Your task to perform on an android device: check android version Image 0: 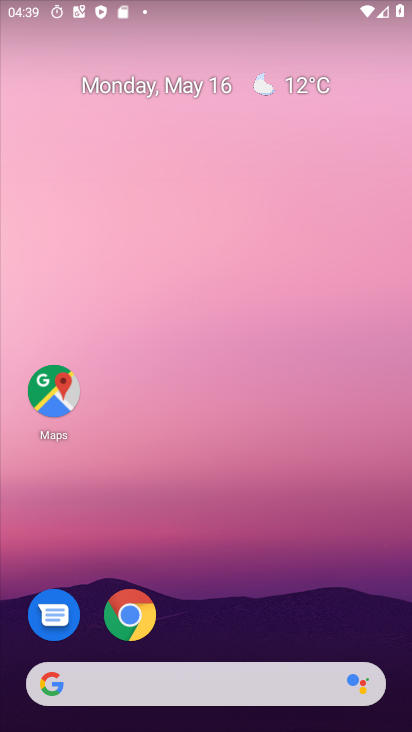
Step 0: drag from (306, 591) to (192, 22)
Your task to perform on an android device: check android version Image 1: 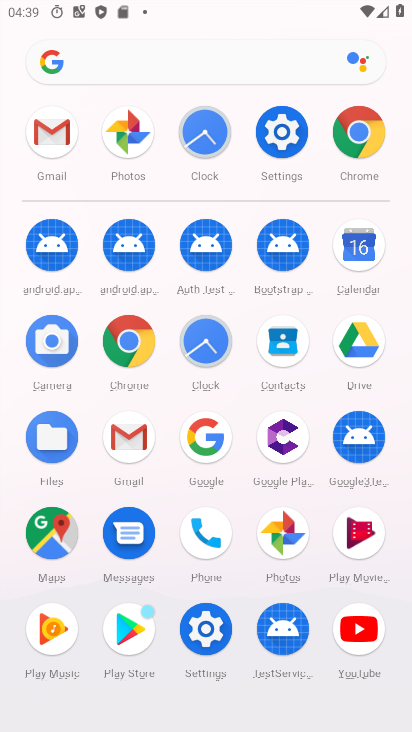
Step 1: click (303, 135)
Your task to perform on an android device: check android version Image 2: 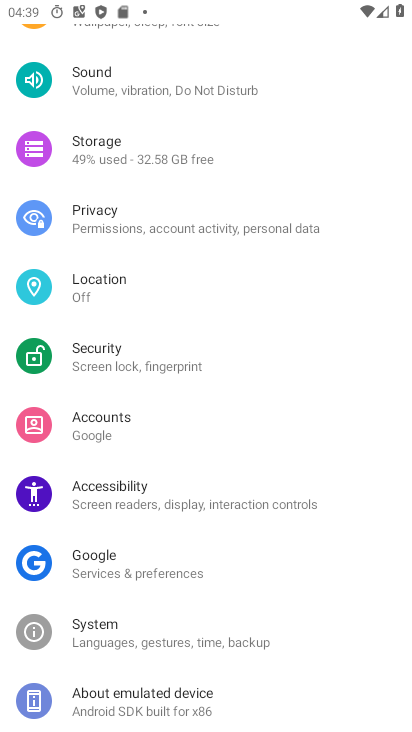
Step 2: click (297, 134)
Your task to perform on an android device: check android version Image 3: 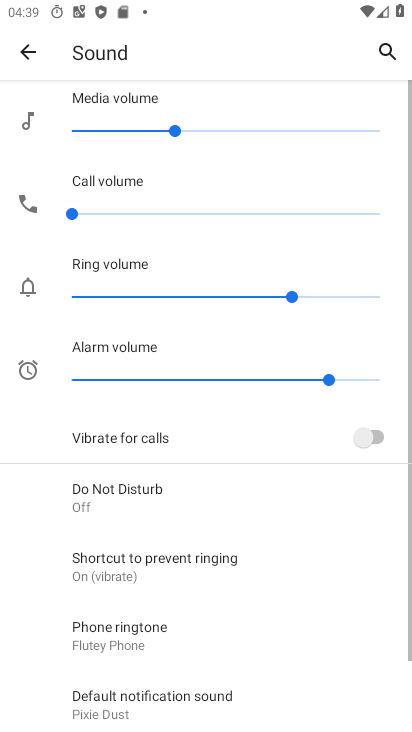
Step 3: drag from (170, 109) to (295, 469)
Your task to perform on an android device: check android version Image 4: 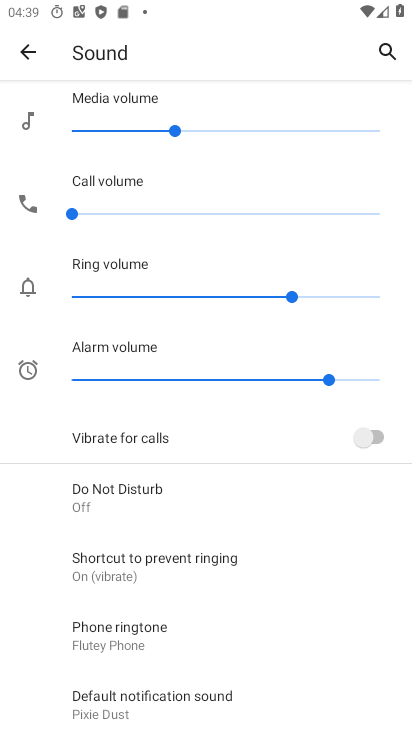
Step 4: click (31, 47)
Your task to perform on an android device: check android version Image 5: 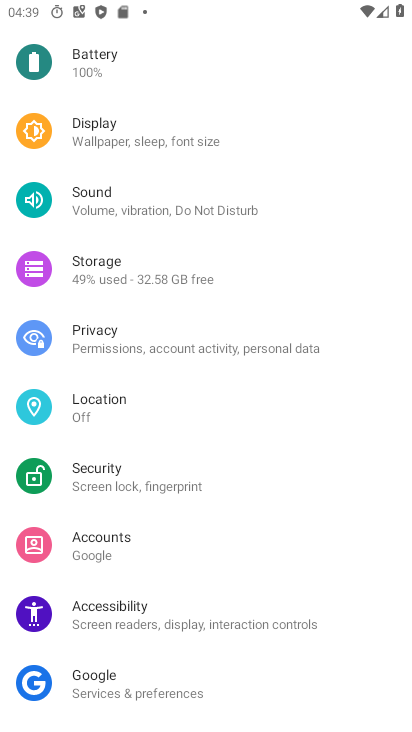
Step 5: drag from (121, 602) to (126, 15)
Your task to perform on an android device: check android version Image 6: 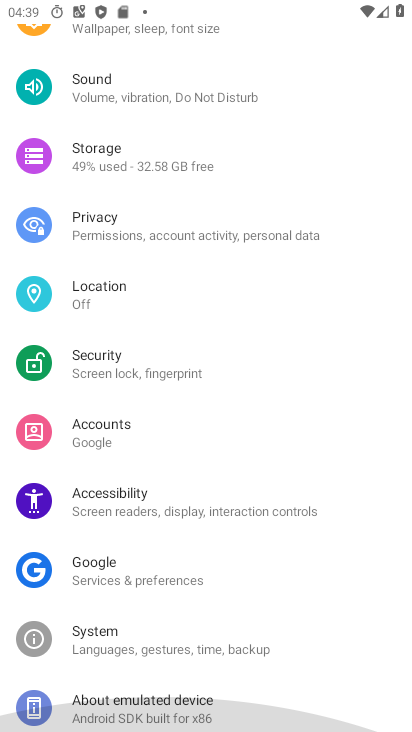
Step 6: drag from (229, 405) to (233, 61)
Your task to perform on an android device: check android version Image 7: 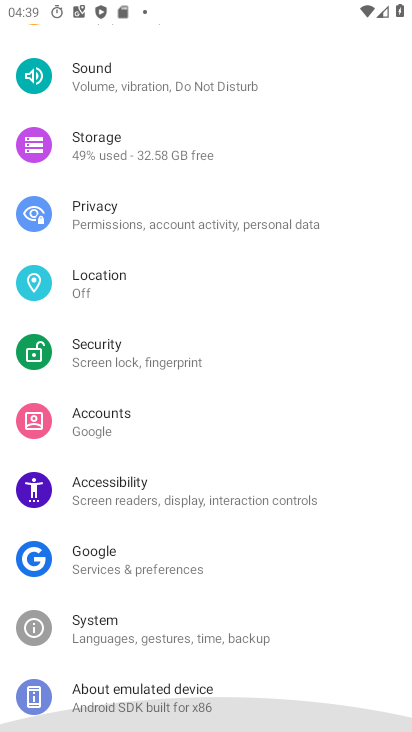
Step 7: drag from (131, 415) to (141, 40)
Your task to perform on an android device: check android version Image 8: 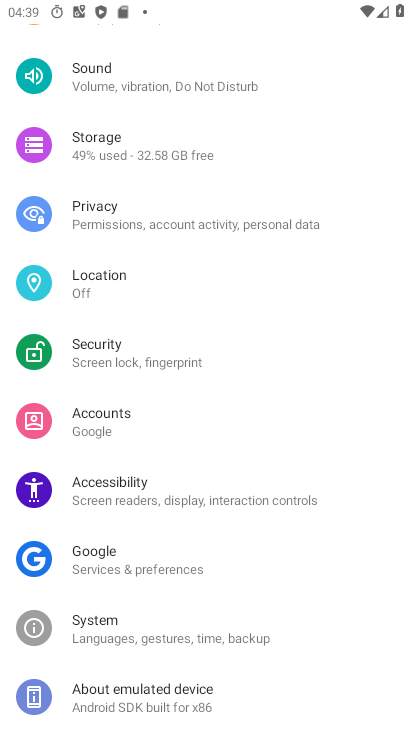
Step 8: click (135, 691)
Your task to perform on an android device: check android version Image 9: 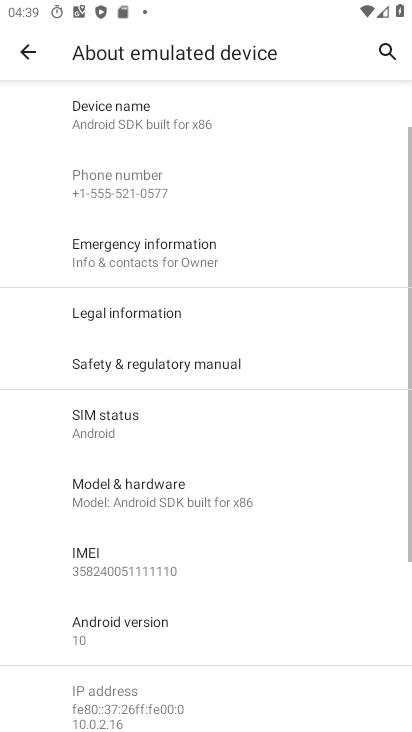
Step 9: drag from (196, 201) to (231, 91)
Your task to perform on an android device: check android version Image 10: 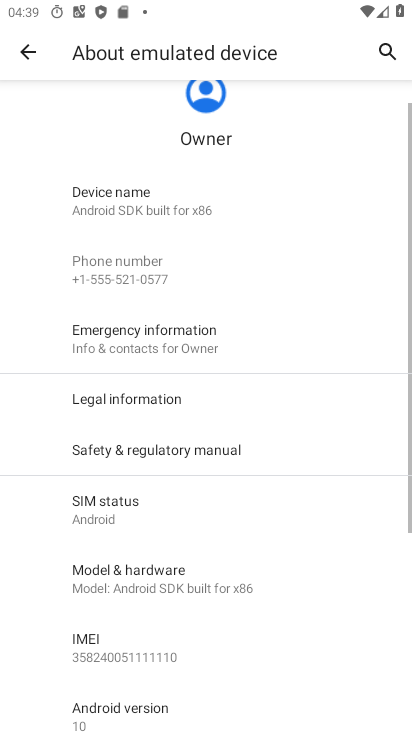
Step 10: drag from (173, 519) to (103, 46)
Your task to perform on an android device: check android version Image 11: 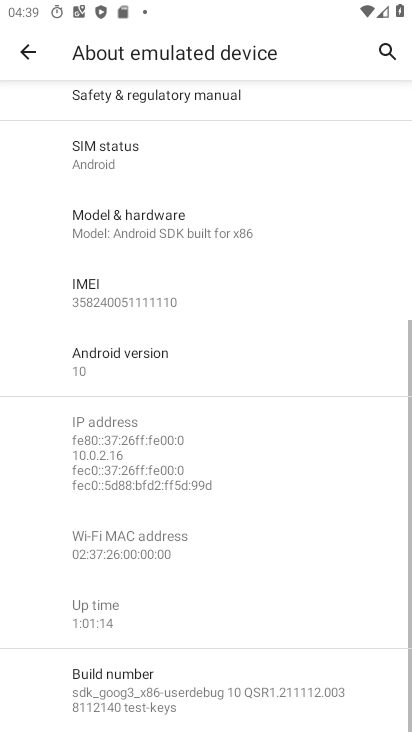
Step 11: drag from (133, 398) to (89, 30)
Your task to perform on an android device: check android version Image 12: 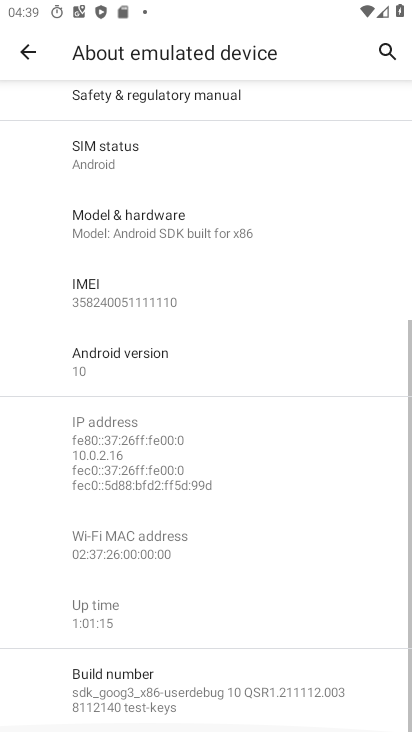
Step 12: click (126, 2)
Your task to perform on an android device: check android version Image 13: 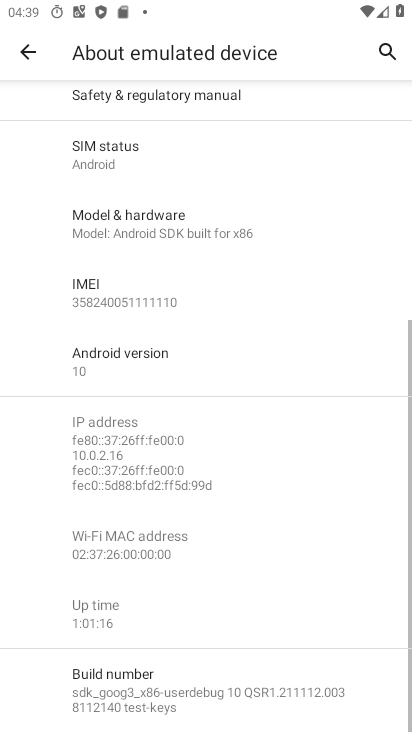
Step 13: task complete